Your task to perform on an android device: open the mobile data screen to see how much data has been used Image 0: 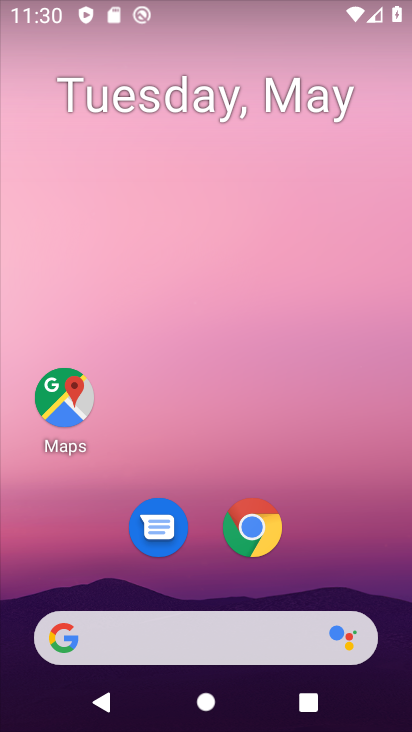
Step 0: drag from (122, 583) to (208, 30)
Your task to perform on an android device: open the mobile data screen to see how much data has been used Image 1: 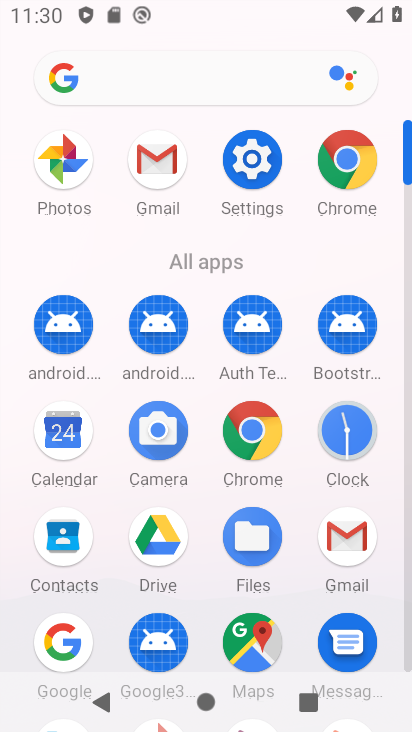
Step 1: click (248, 163)
Your task to perform on an android device: open the mobile data screen to see how much data has been used Image 2: 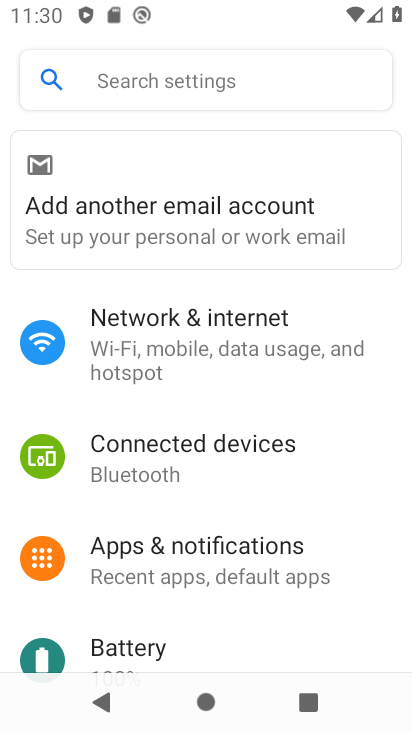
Step 2: click (207, 336)
Your task to perform on an android device: open the mobile data screen to see how much data has been used Image 3: 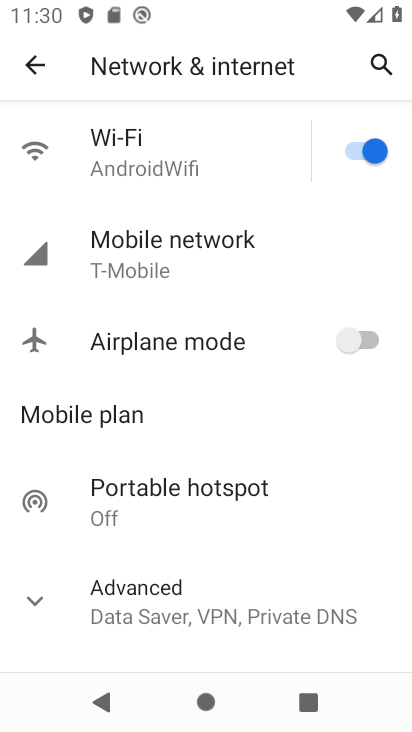
Step 3: drag from (166, 514) to (187, 229)
Your task to perform on an android device: open the mobile data screen to see how much data has been used Image 4: 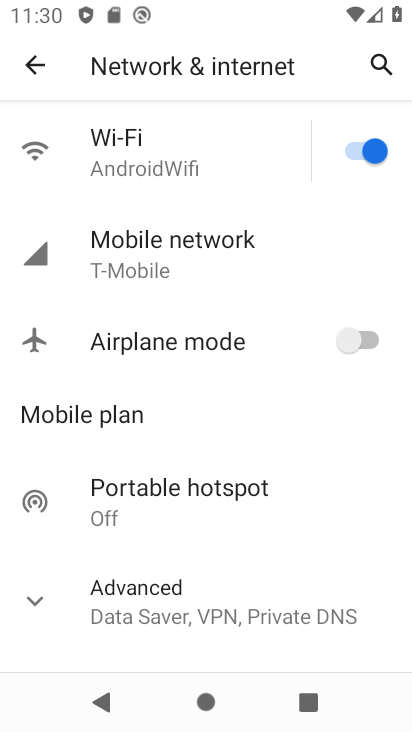
Step 4: click (183, 262)
Your task to perform on an android device: open the mobile data screen to see how much data has been used Image 5: 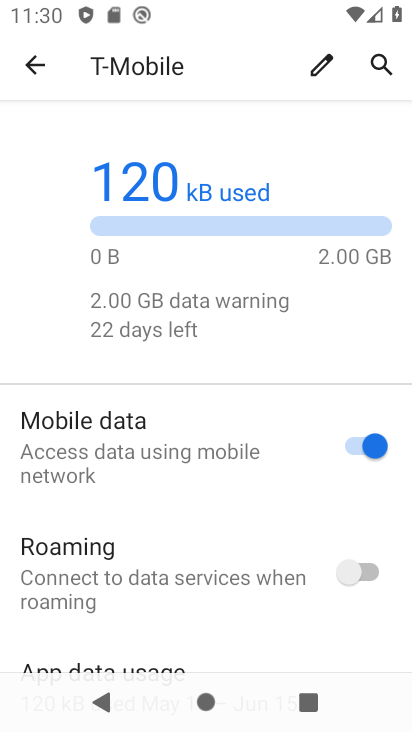
Step 5: task complete